Your task to perform on an android device: check out phone information Image 0: 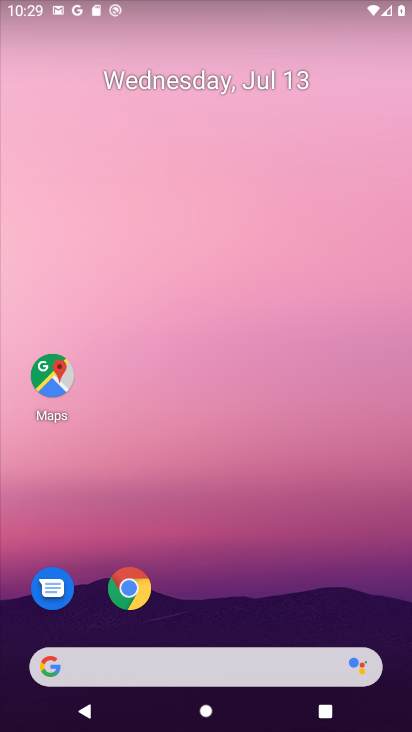
Step 0: drag from (257, 597) to (261, 4)
Your task to perform on an android device: check out phone information Image 1: 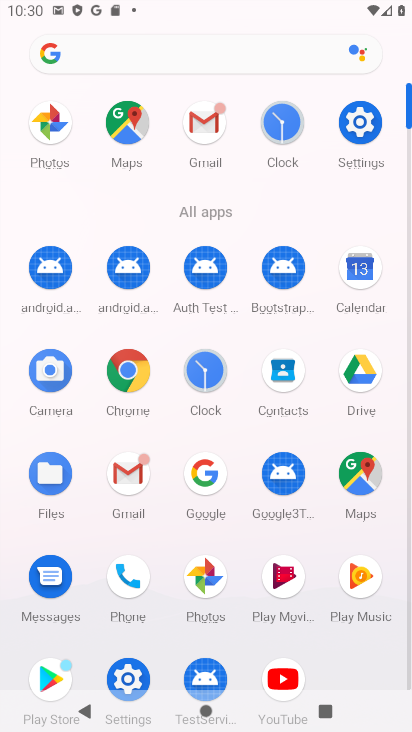
Step 1: click (130, 662)
Your task to perform on an android device: check out phone information Image 2: 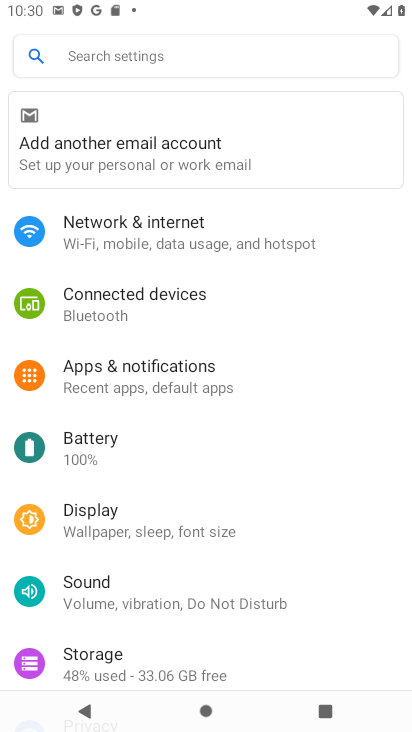
Step 2: drag from (219, 536) to (263, 211)
Your task to perform on an android device: check out phone information Image 3: 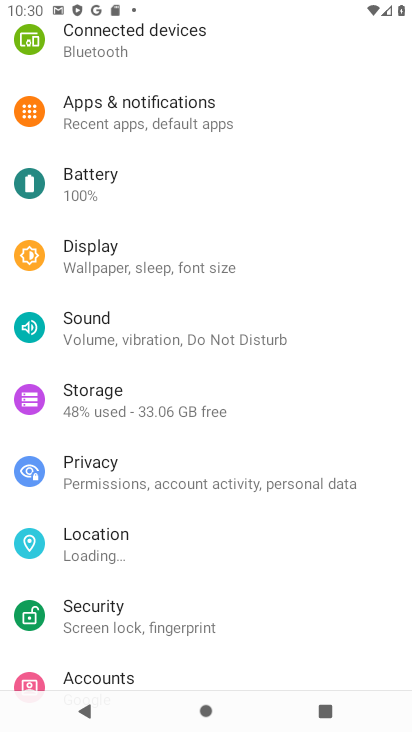
Step 3: drag from (151, 501) to (210, 106)
Your task to perform on an android device: check out phone information Image 4: 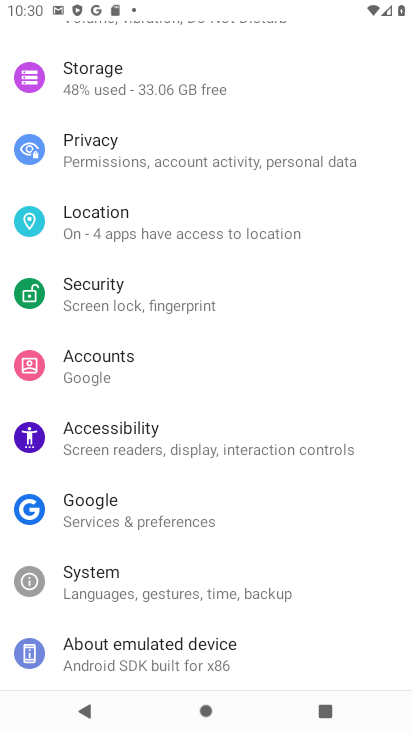
Step 4: click (188, 658)
Your task to perform on an android device: check out phone information Image 5: 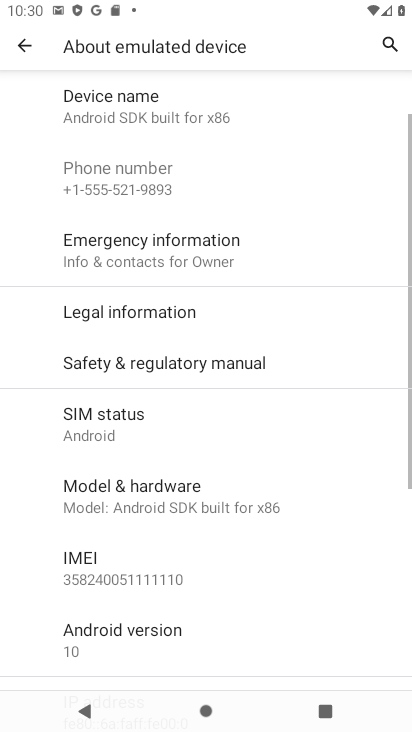
Step 5: task complete